Your task to perform on an android device: Open Maps and search for coffee Image 0: 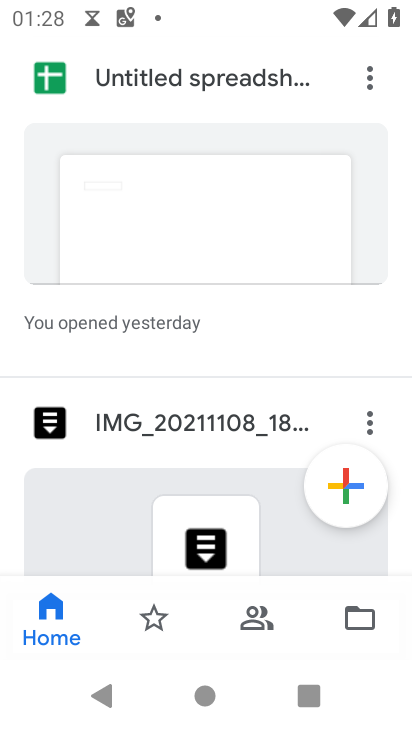
Step 0: press home button
Your task to perform on an android device: Open Maps and search for coffee Image 1: 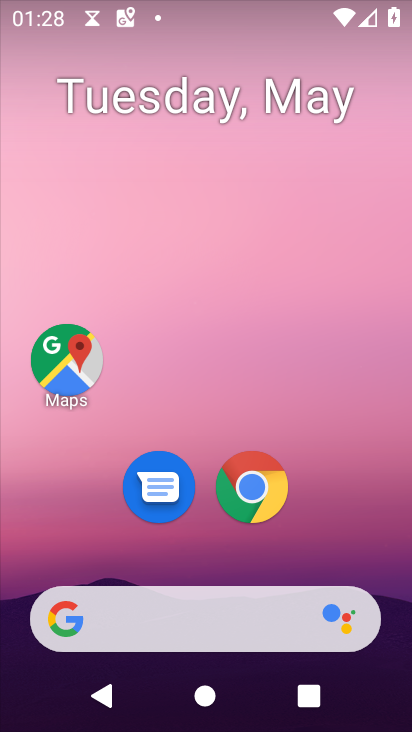
Step 1: click (74, 334)
Your task to perform on an android device: Open Maps and search for coffee Image 2: 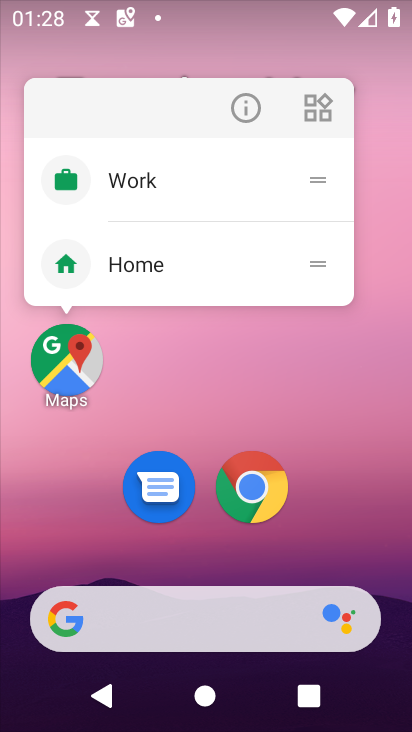
Step 2: click (72, 362)
Your task to perform on an android device: Open Maps and search for coffee Image 3: 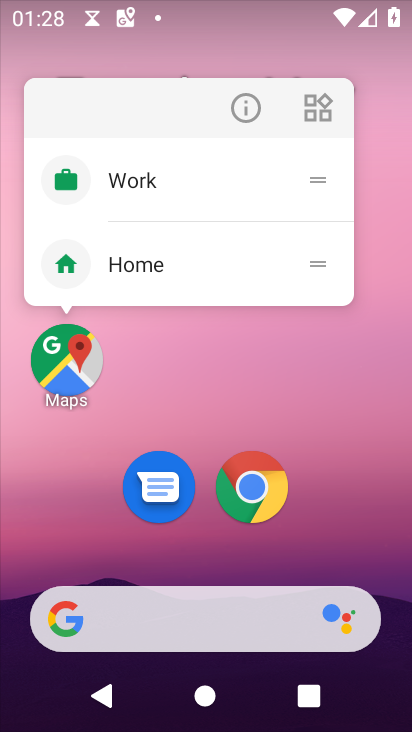
Step 3: click (72, 362)
Your task to perform on an android device: Open Maps and search for coffee Image 4: 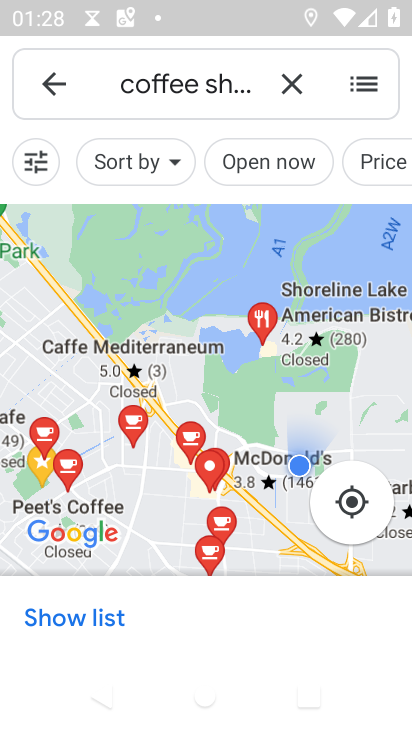
Step 4: task complete